Your task to perform on an android device: delete the emails in spam in the gmail app Image 0: 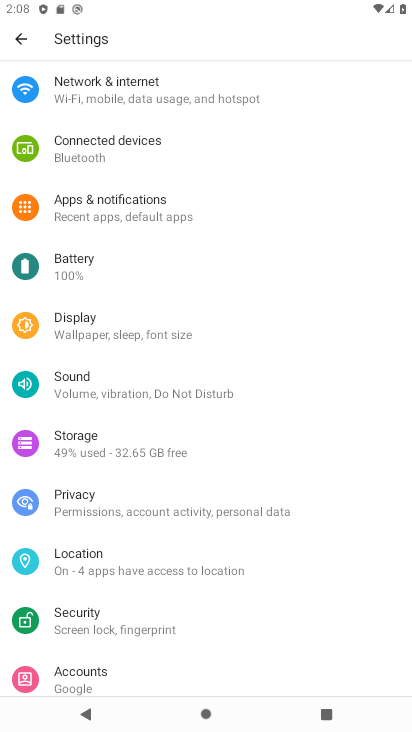
Step 0: press home button
Your task to perform on an android device: delete the emails in spam in the gmail app Image 1: 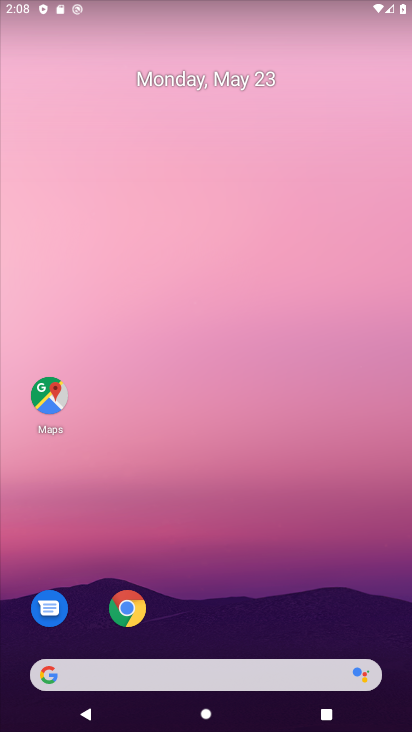
Step 1: drag from (301, 355) to (295, 251)
Your task to perform on an android device: delete the emails in spam in the gmail app Image 2: 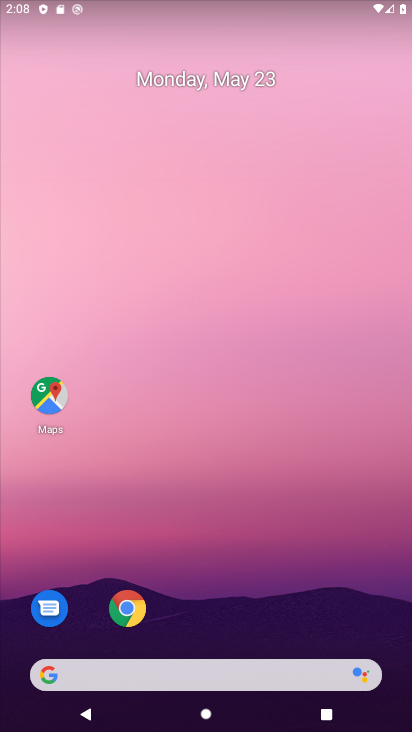
Step 2: drag from (224, 599) to (233, 370)
Your task to perform on an android device: delete the emails in spam in the gmail app Image 3: 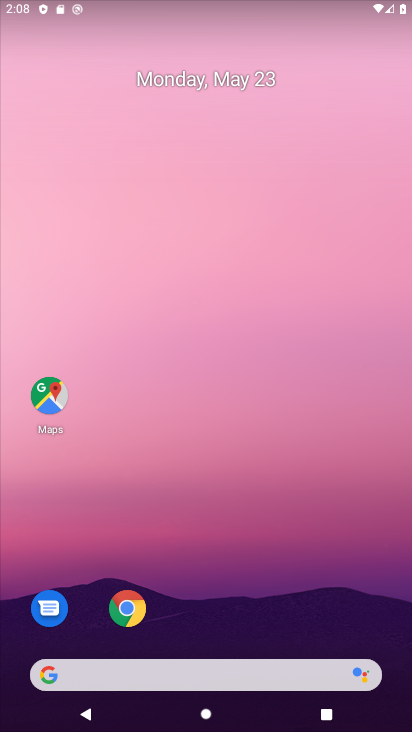
Step 3: drag from (272, 698) to (270, 323)
Your task to perform on an android device: delete the emails in spam in the gmail app Image 4: 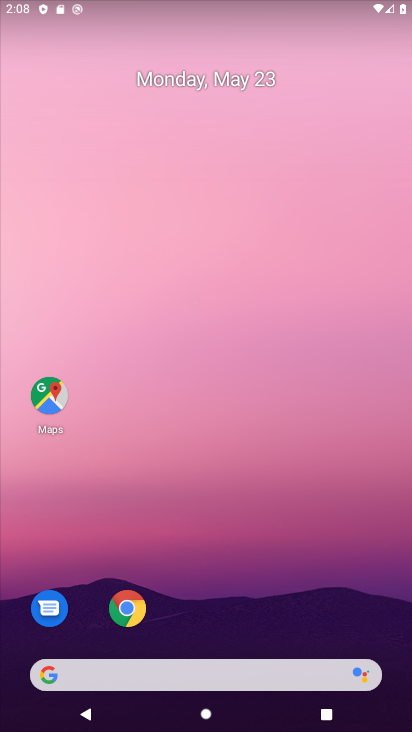
Step 4: drag from (273, 662) to (248, 191)
Your task to perform on an android device: delete the emails in spam in the gmail app Image 5: 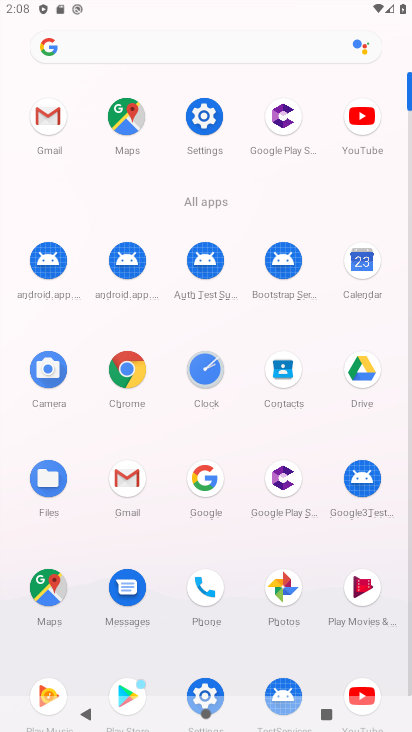
Step 5: click (138, 465)
Your task to perform on an android device: delete the emails in spam in the gmail app Image 6: 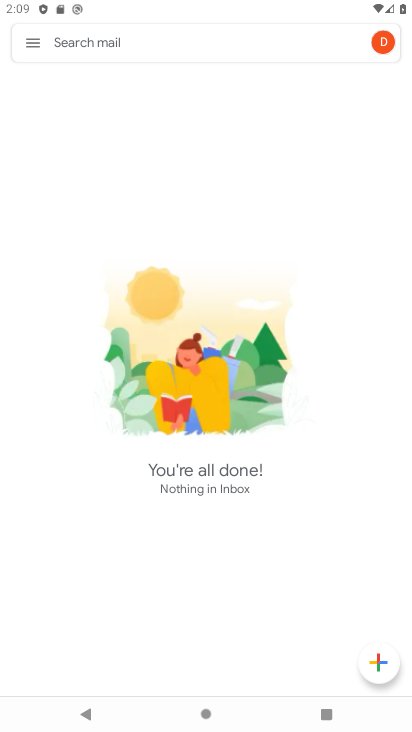
Step 6: click (35, 32)
Your task to perform on an android device: delete the emails in spam in the gmail app Image 7: 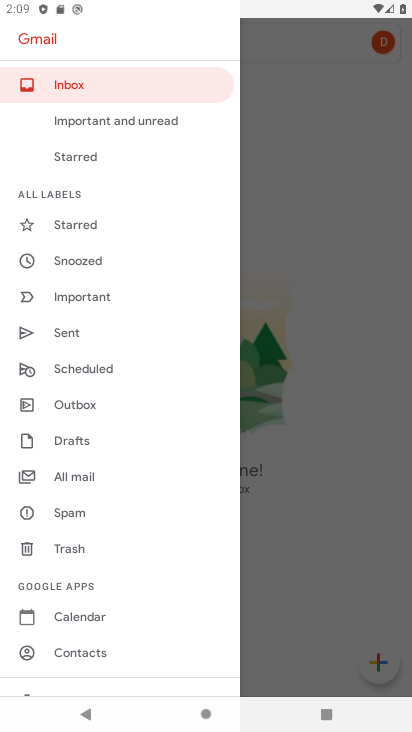
Step 7: click (93, 474)
Your task to perform on an android device: delete the emails in spam in the gmail app Image 8: 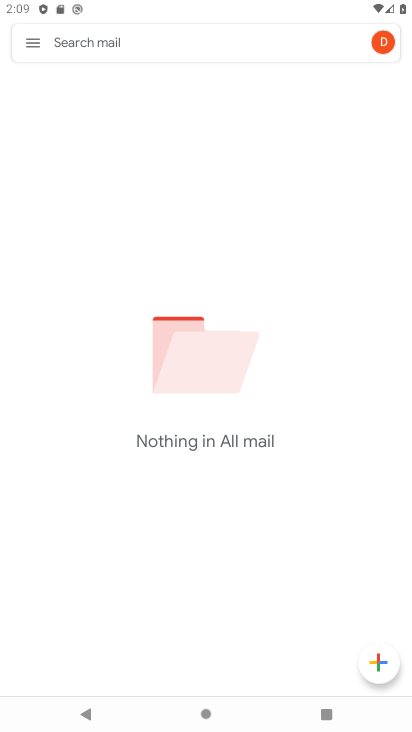
Step 8: task complete